Your task to perform on an android device: open app "Google Chat" Image 0: 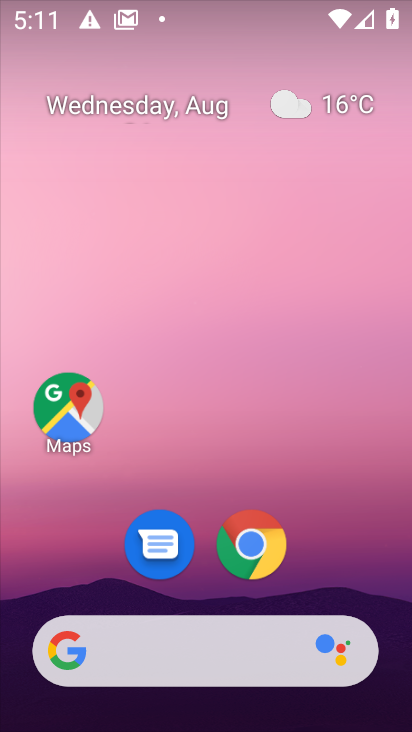
Step 0: drag from (151, 676) to (188, 153)
Your task to perform on an android device: open app "Google Chat" Image 1: 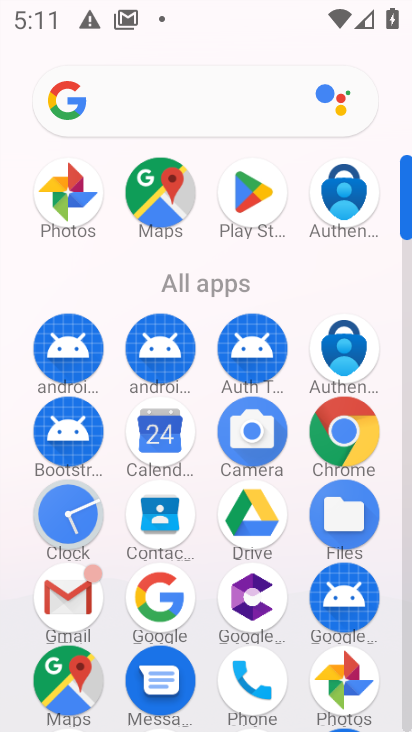
Step 1: click (258, 196)
Your task to perform on an android device: open app "Google Chat" Image 2: 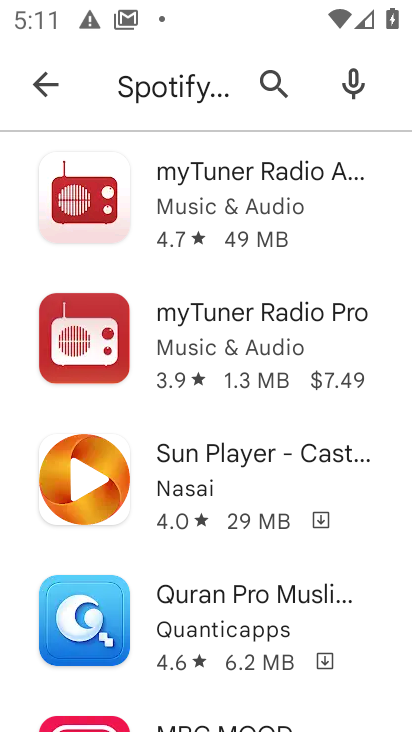
Step 2: press back button
Your task to perform on an android device: open app "Google Chat" Image 3: 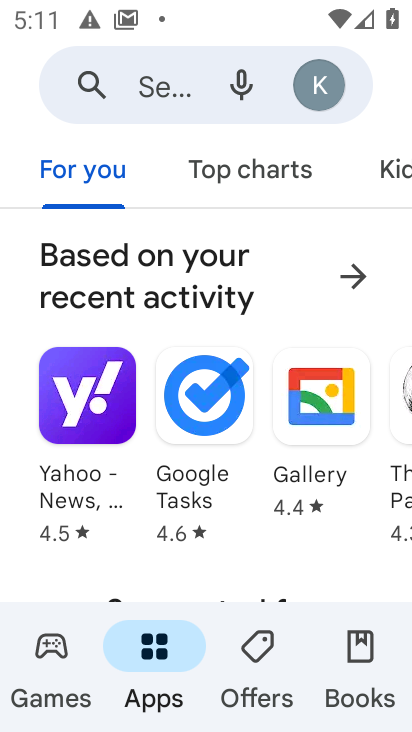
Step 3: click (167, 79)
Your task to perform on an android device: open app "Google Chat" Image 4: 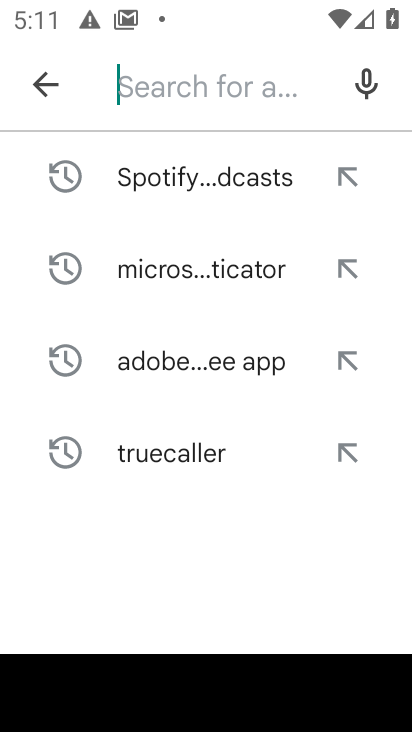
Step 4: type "Google chat"
Your task to perform on an android device: open app "Google Chat" Image 5: 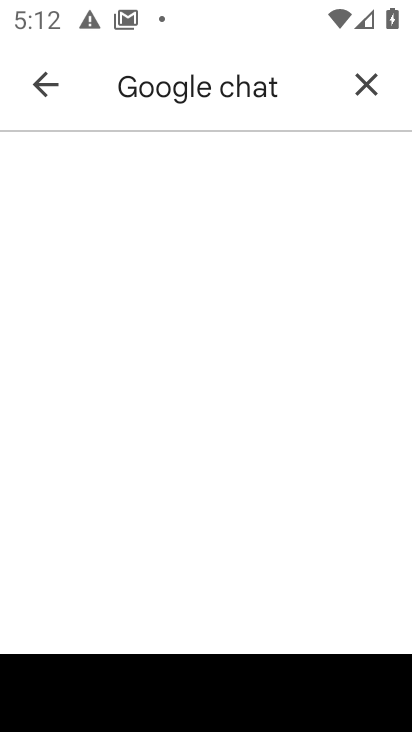
Step 5: task complete